Your task to perform on an android device: move an email to a new category in the gmail app Image 0: 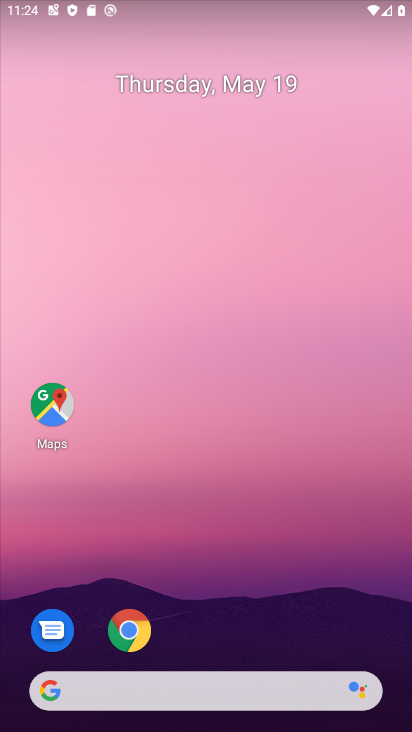
Step 0: drag from (255, 614) to (222, 184)
Your task to perform on an android device: move an email to a new category in the gmail app Image 1: 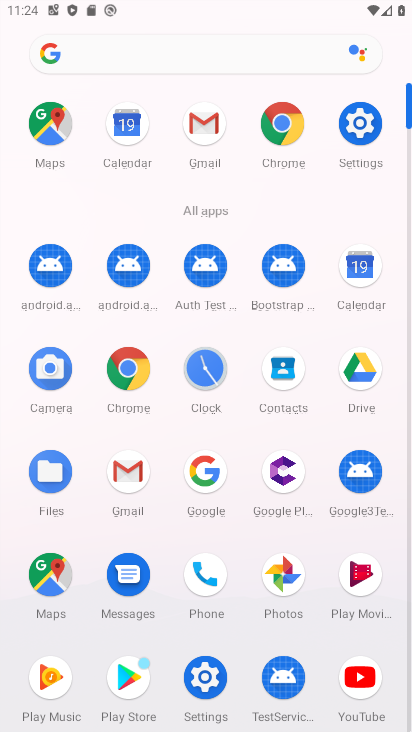
Step 1: click (205, 124)
Your task to perform on an android device: move an email to a new category in the gmail app Image 2: 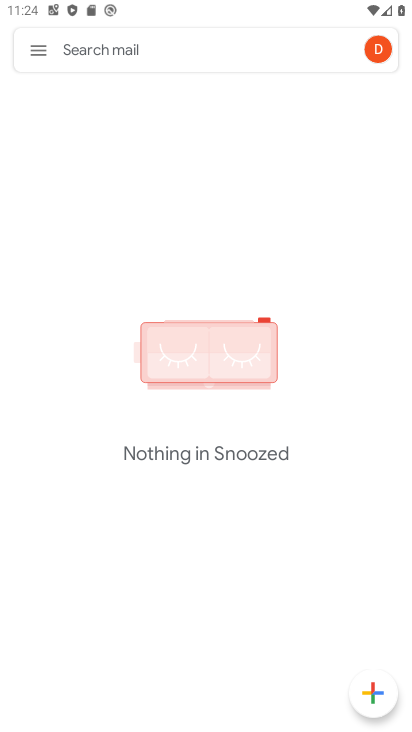
Step 2: click (32, 50)
Your task to perform on an android device: move an email to a new category in the gmail app Image 3: 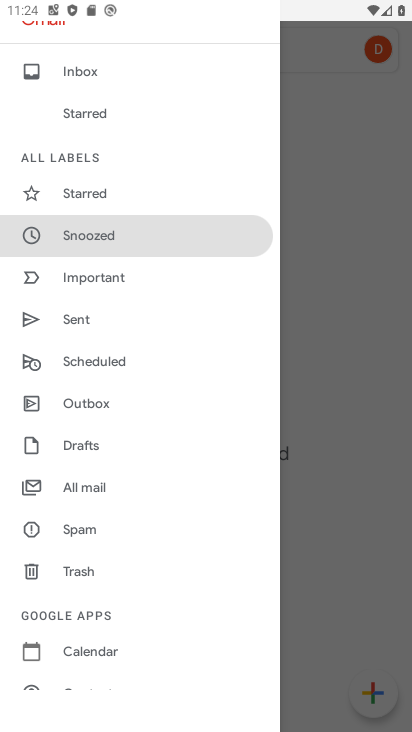
Step 3: click (89, 74)
Your task to perform on an android device: move an email to a new category in the gmail app Image 4: 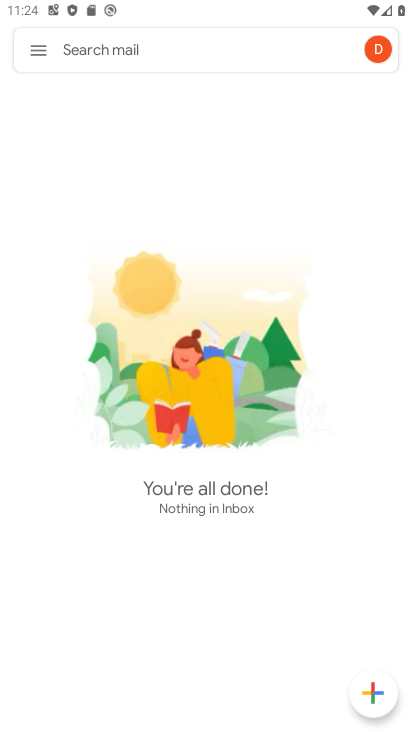
Step 4: click (34, 53)
Your task to perform on an android device: move an email to a new category in the gmail app Image 5: 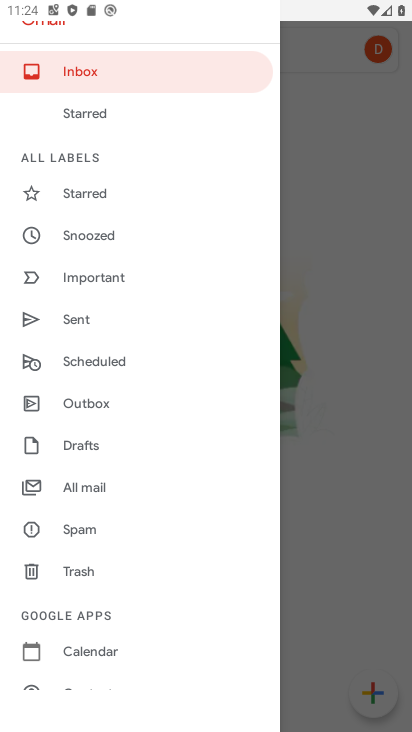
Step 5: drag from (91, 510) to (133, 430)
Your task to perform on an android device: move an email to a new category in the gmail app Image 6: 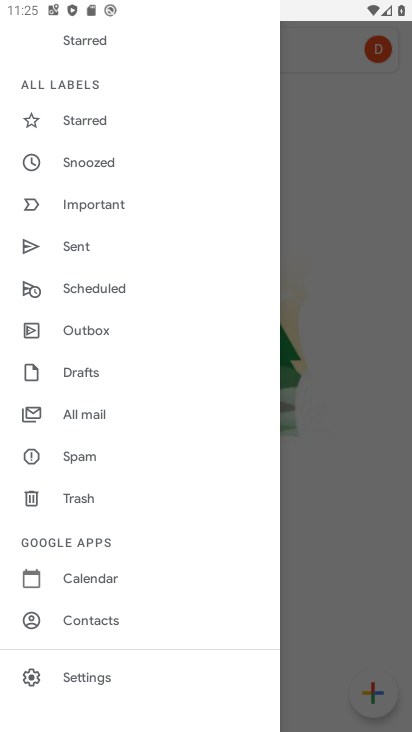
Step 6: click (79, 409)
Your task to perform on an android device: move an email to a new category in the gmail app Image 7: 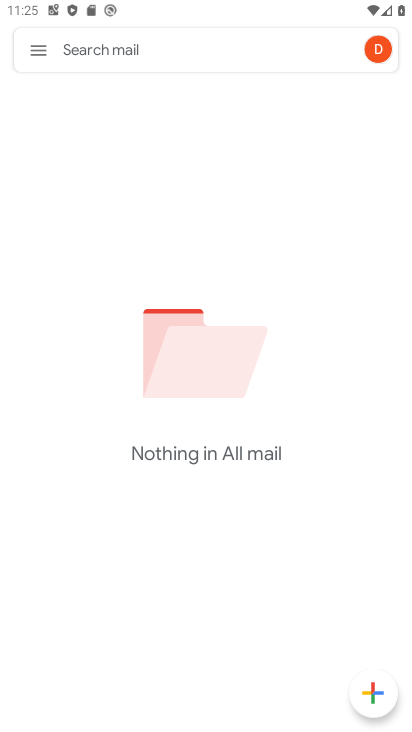
Step 7: task complete